Your task to perform on an android device: Open the Play Movies app and select the watchlist tab. Image 0: 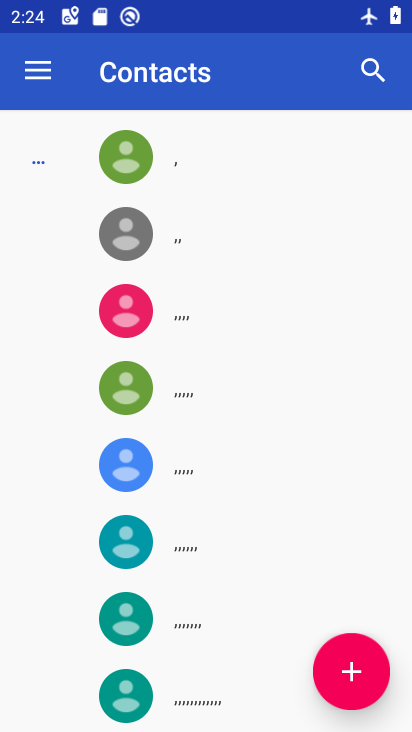
Step 0: press home button
Your task to perform on an android device: Open the Play Movies app and select the watchlist tab. Image 1: 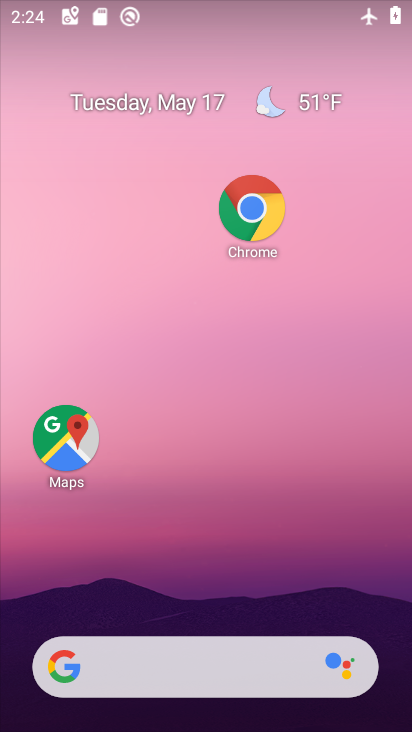
Step 1: drag from (205, 604) to (125, 22)
Your task to perform on an android device: Open the Play Movies app and select the watchlist tab. Image 2: 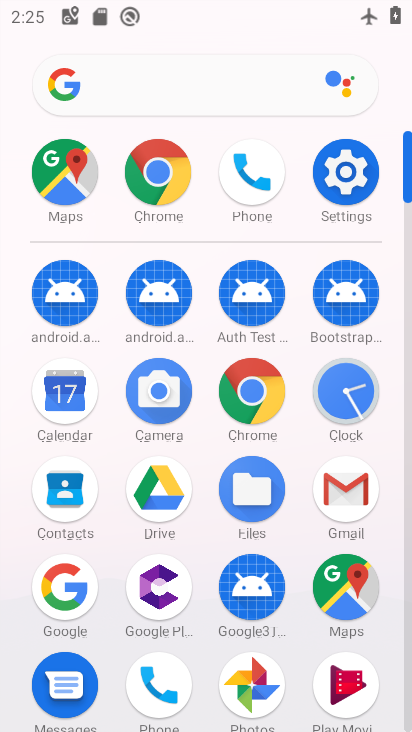
Step 2: click (347, 684)
Your task to perform on an android device: Open the Play Movies app and select the watchlist tab. Image 3: 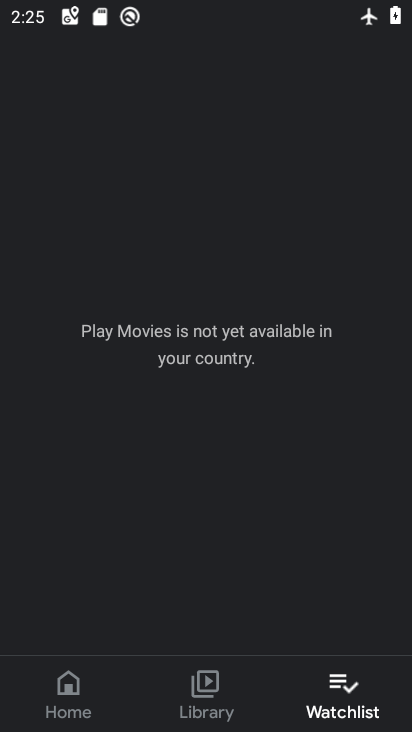
Step 3: click (335, 697)
Your task to perform on an android device: Open the Play Movies app and select the watchlist tab. Image 4: 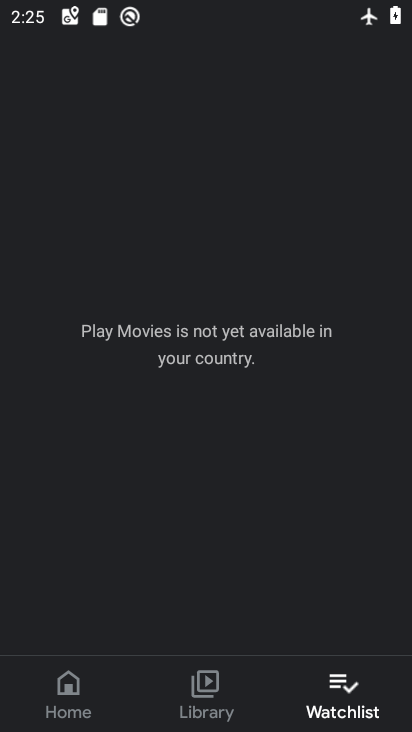
Step 4: task complete